Your task to perform on an android device: turn on wifi Image 0: 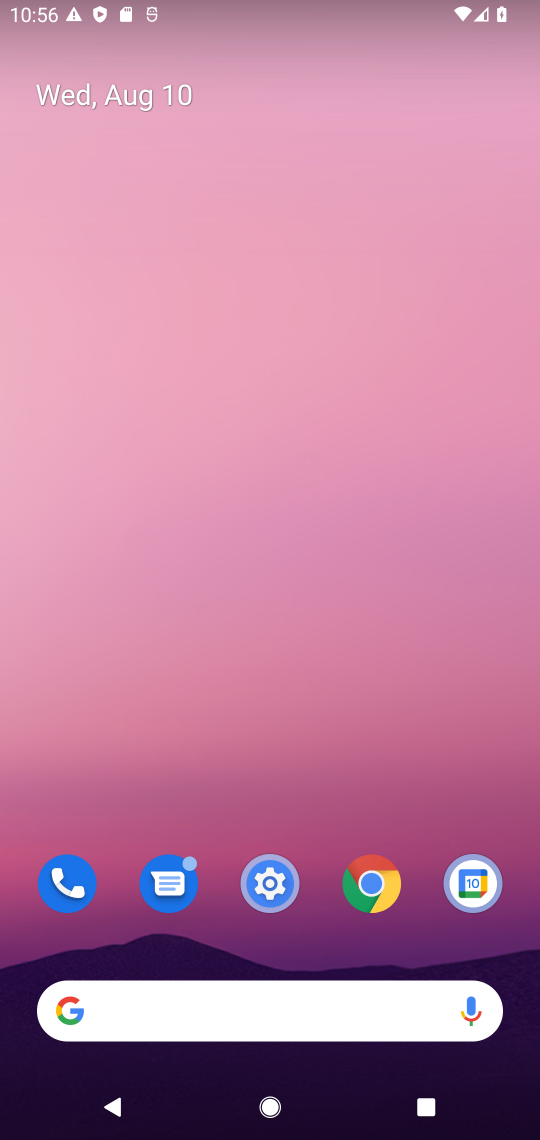
Step 0: drag from (193, 12) to (206, 988)
Your task to perform on an android device: turn on wifi Image 1: 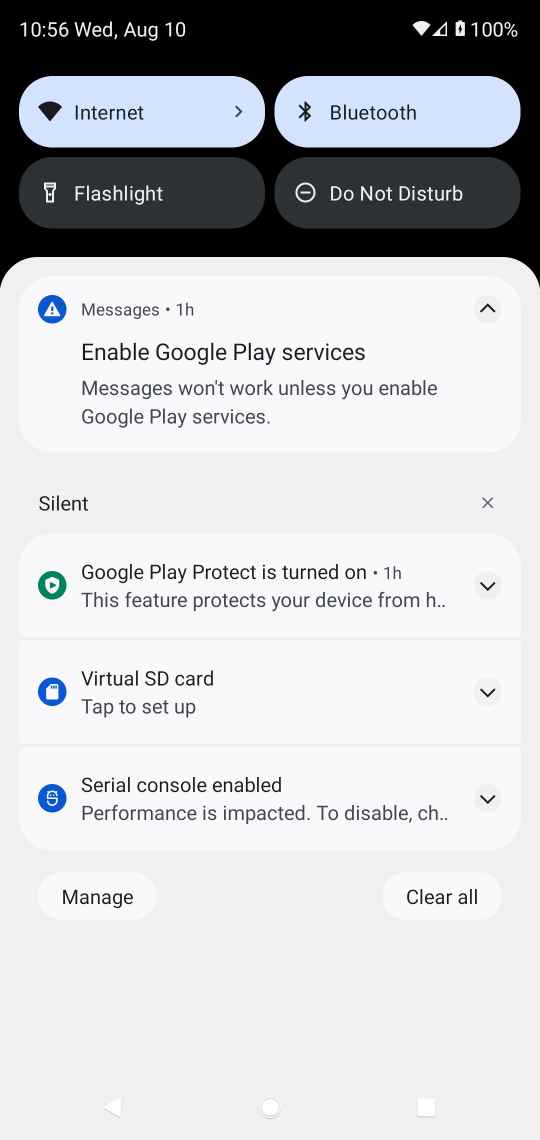
Step 1: click (126, 122)
Your task to perform on an android device: turn on wifi Image 2: 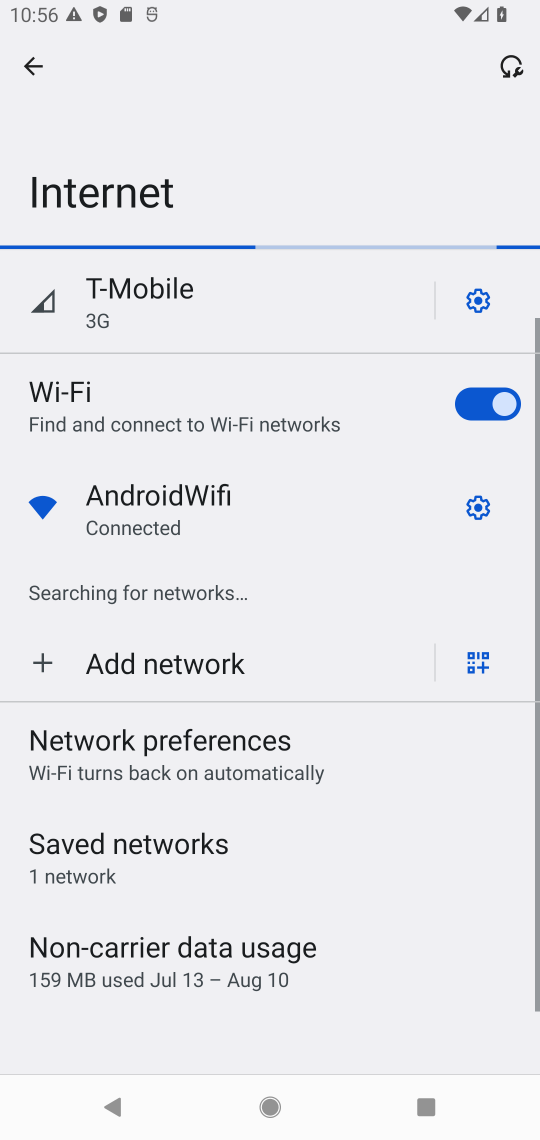
Step 2: task complete